Your task to perform on an android device: How do I get to the nearest T-Mobile Store? Image 0: 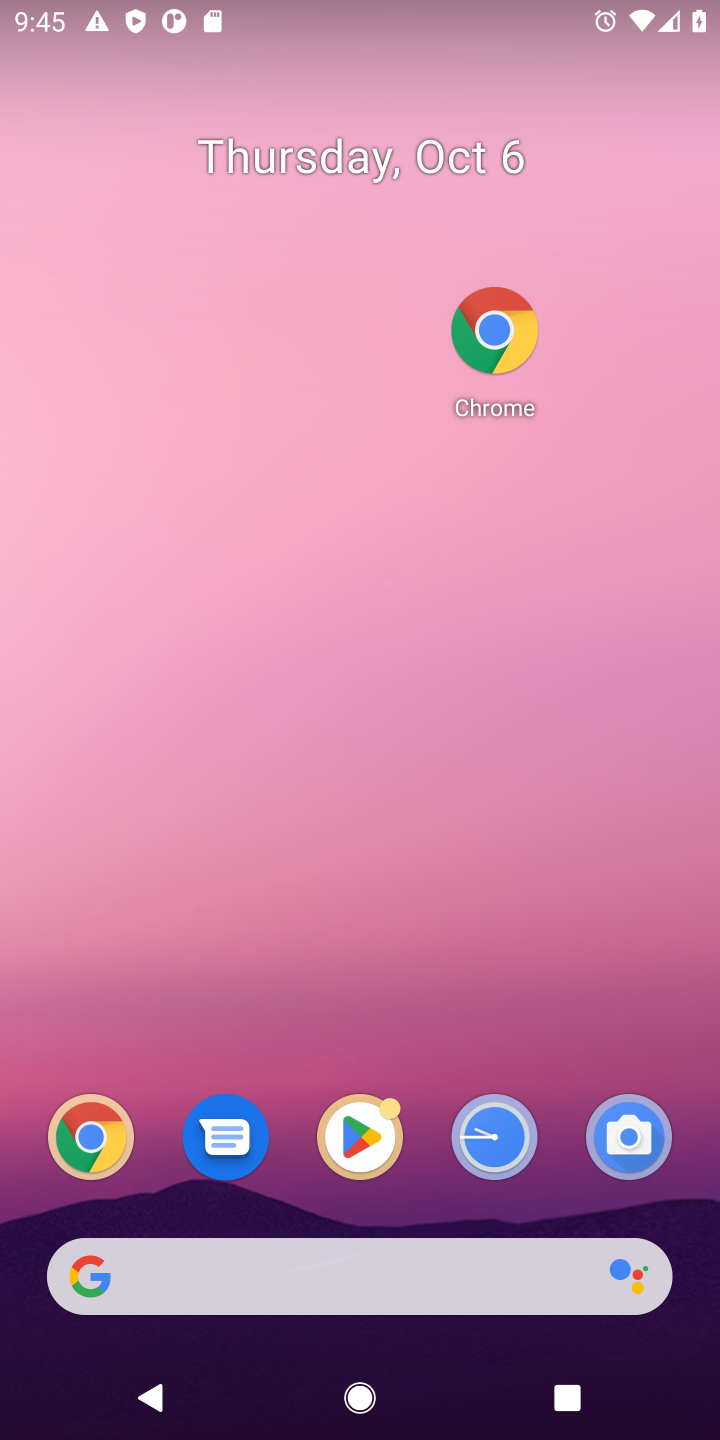
Step 0: click (97, 1141)
Your task to perform on an android device: How do I get to the nearest T-Mobile Store? Image 1: 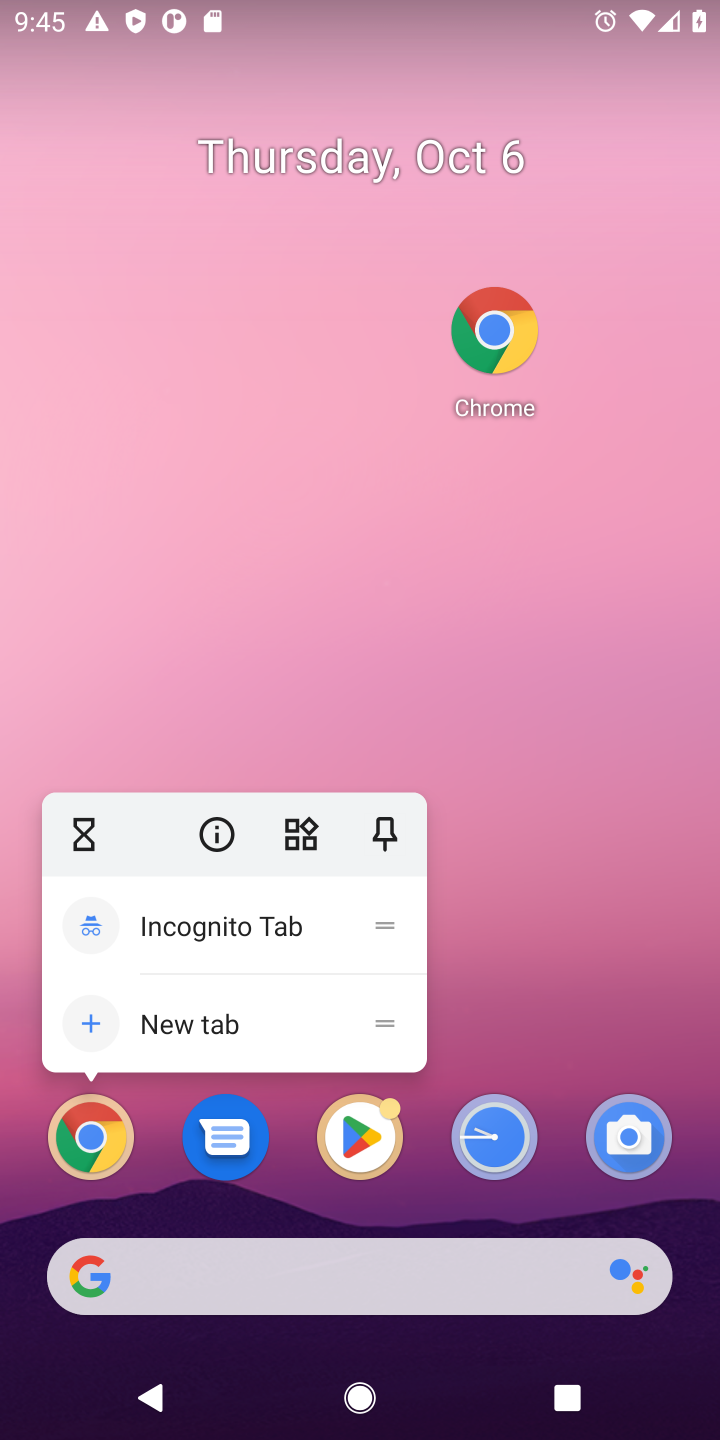
Step 1: click (88, 1129)
Your task to perform on an android device: How do I get to the nearest T-Mobile Store? Image 2: 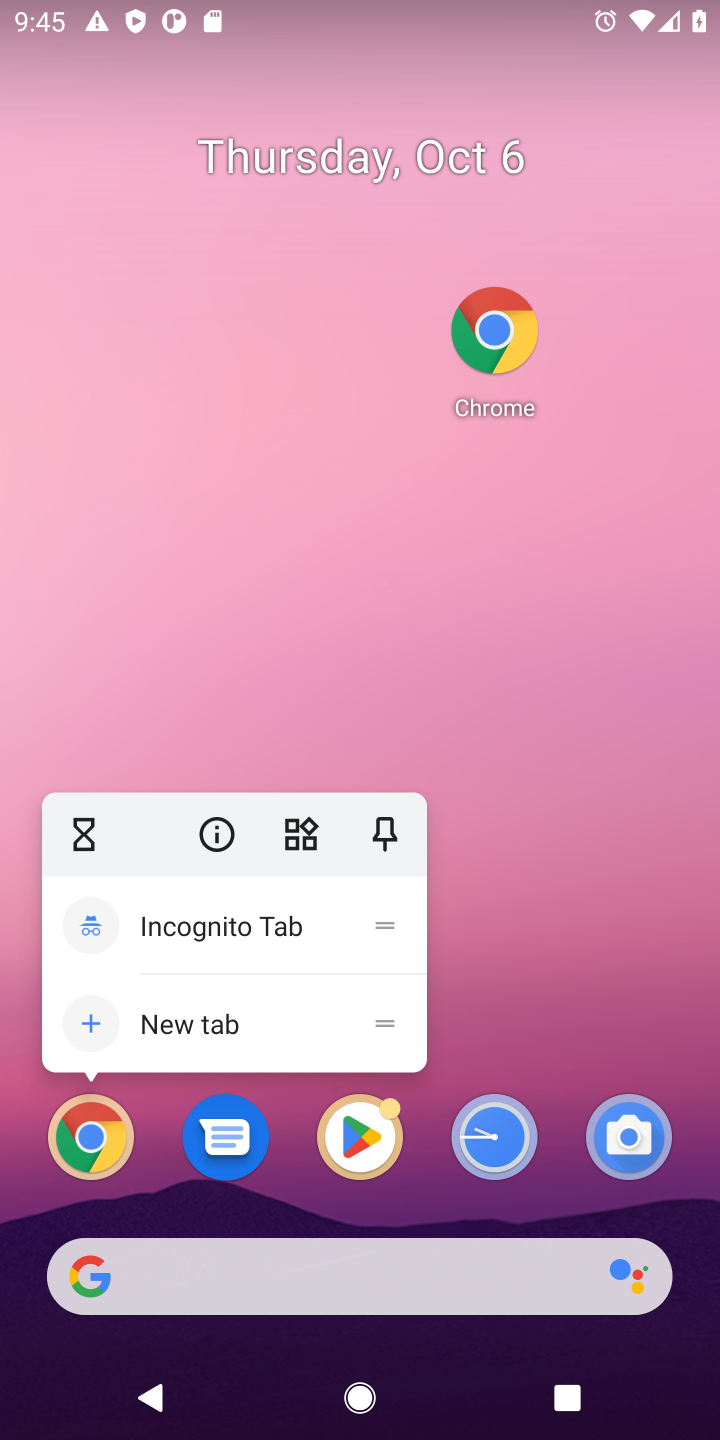
Step 2: click (102, 1153)
Your task to perform on an android device: How do I get to the nearest T-Mobile Store? Image 3: 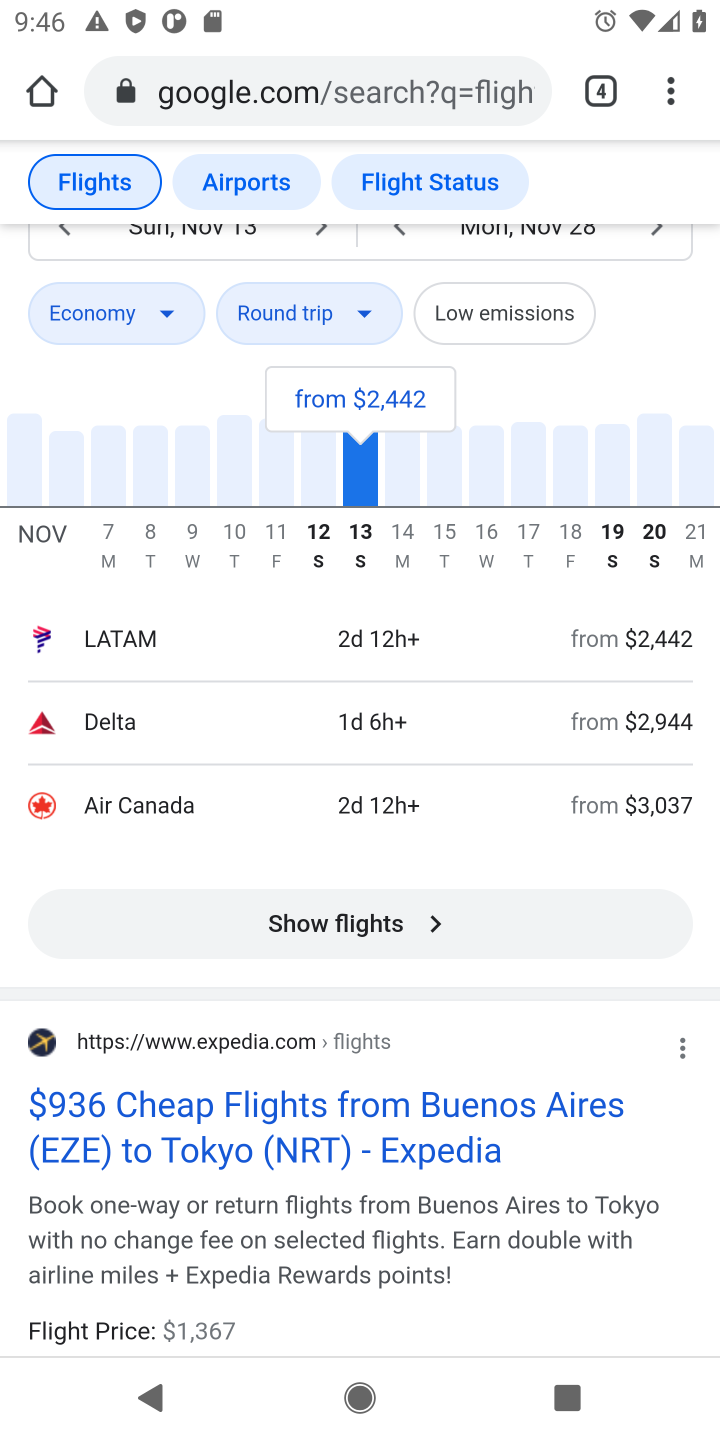
Step 3: click (403, 94)
Your task to perform on an android device: How do I get to the nearest T-Mobile Store? Image 4: 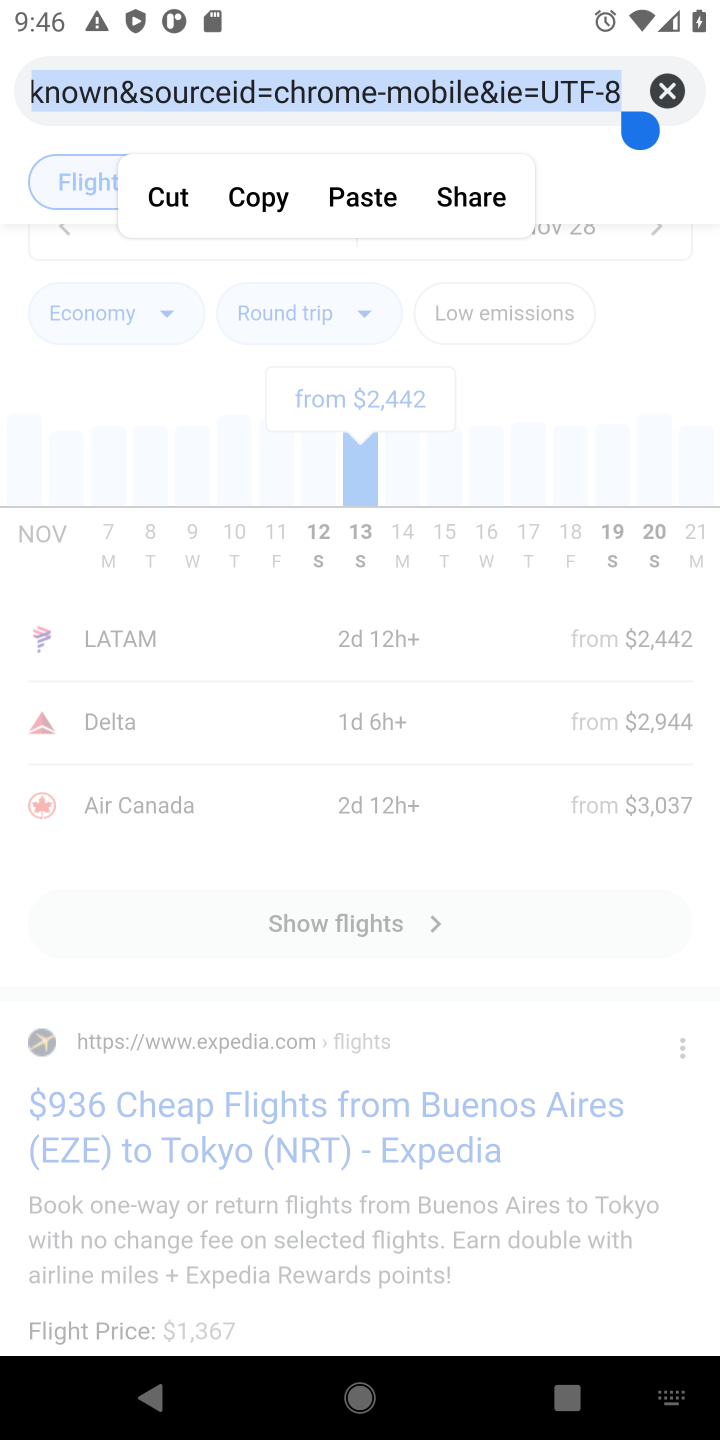
Step 4: click (668, 92)
Your task to perform on an android device: How do I get to the nearest T-Mobile Store? Image 5: 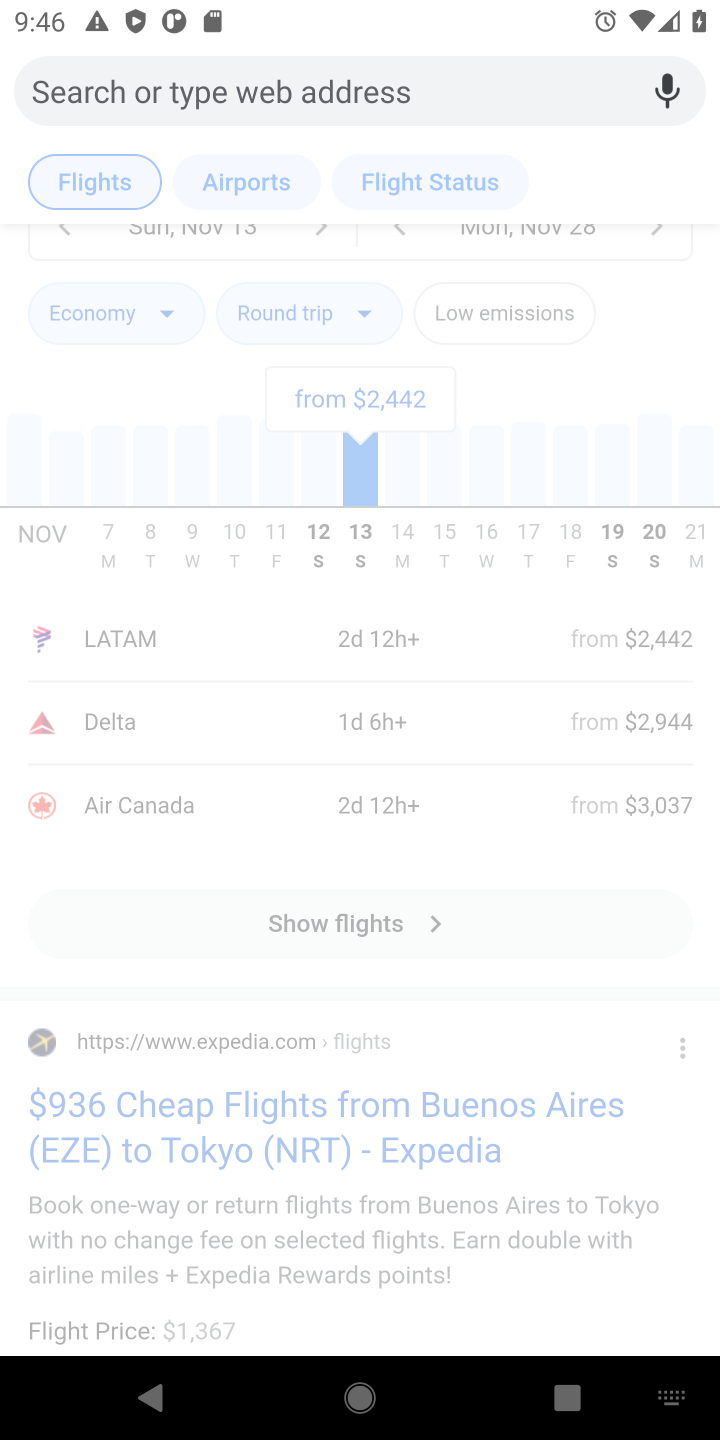
Step 5: type "How do I get to the nearest T-Mobile Store"
Your task to perform on an android device: How do I get to the nearest T-Mobile Store? Image 6: 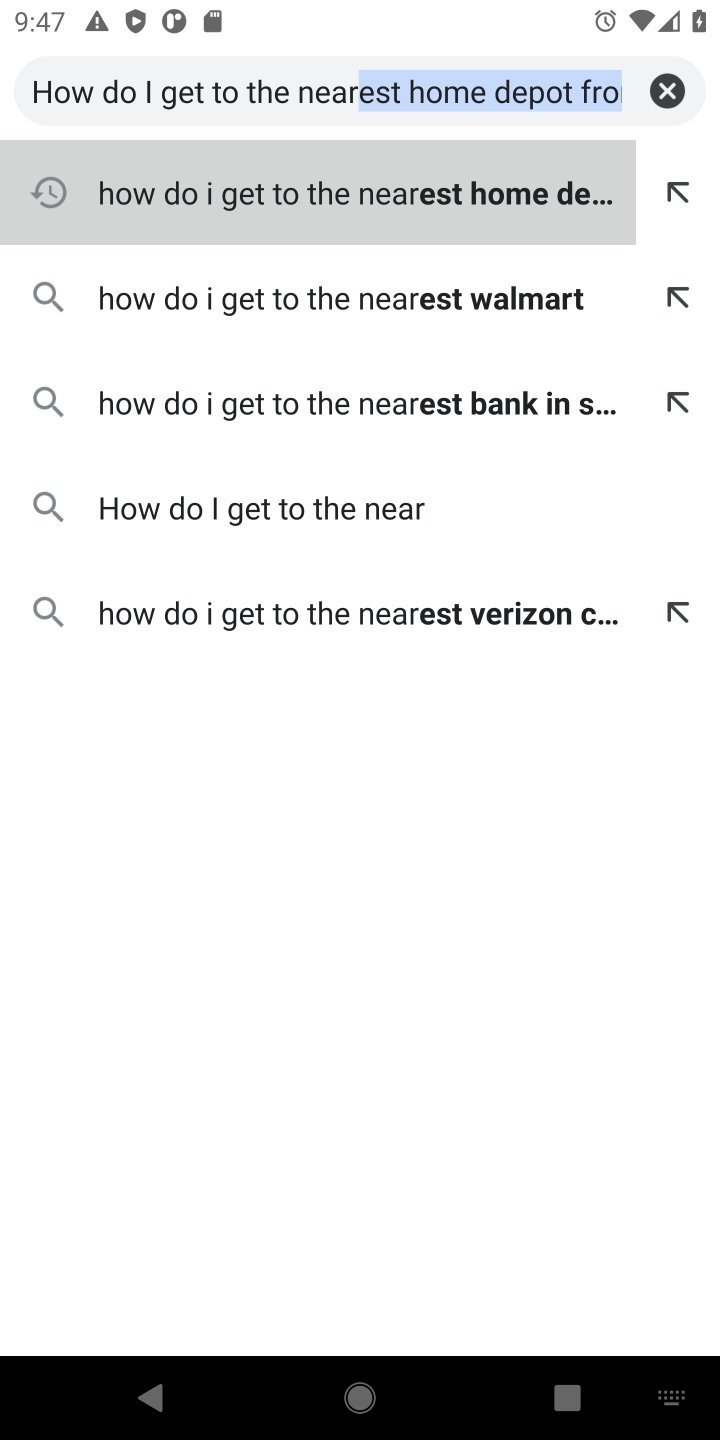
Step 6: click (361, 96)
Your task to perform on an android device: How do I get to the nearest T-Mobile Store? Image 7: 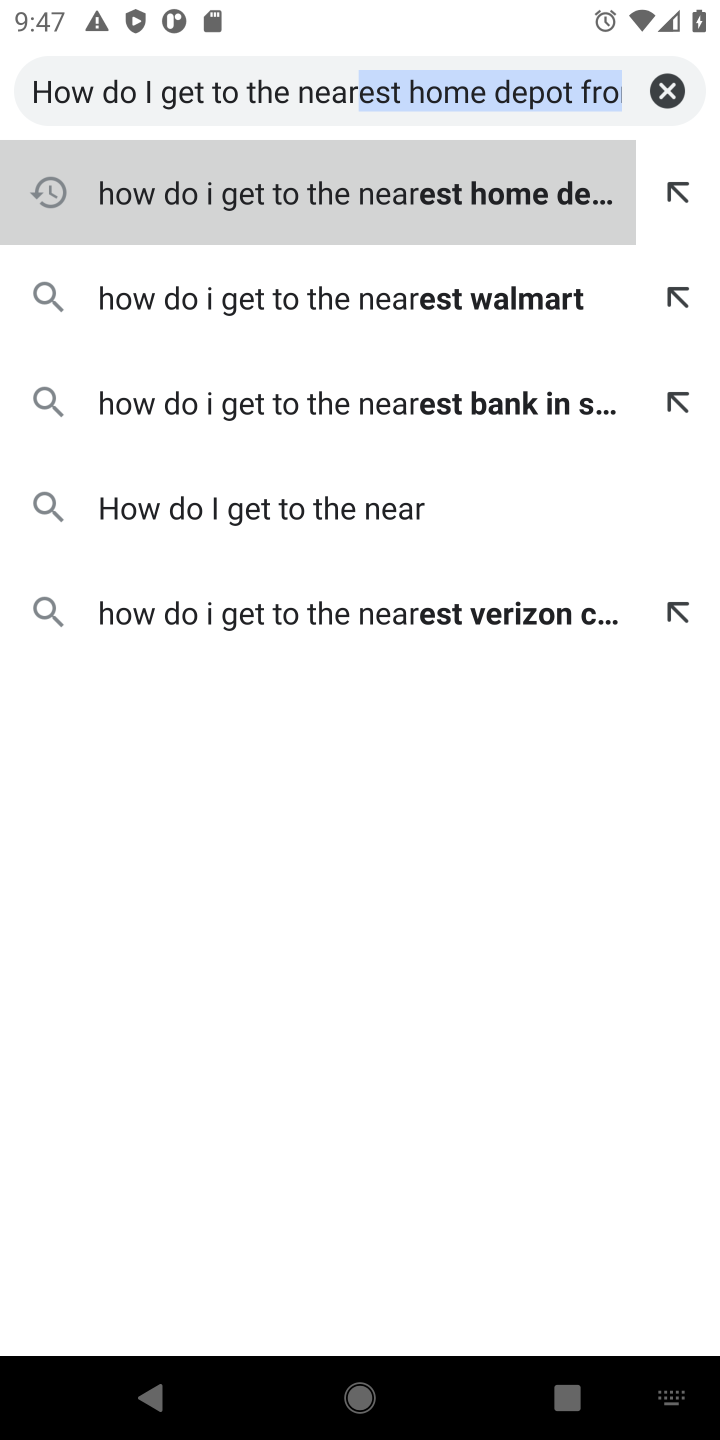
Step 7: click (351, 94)
Your task to perform on an android device: How do I get to the nearest T-Mobile Store? Image 8: 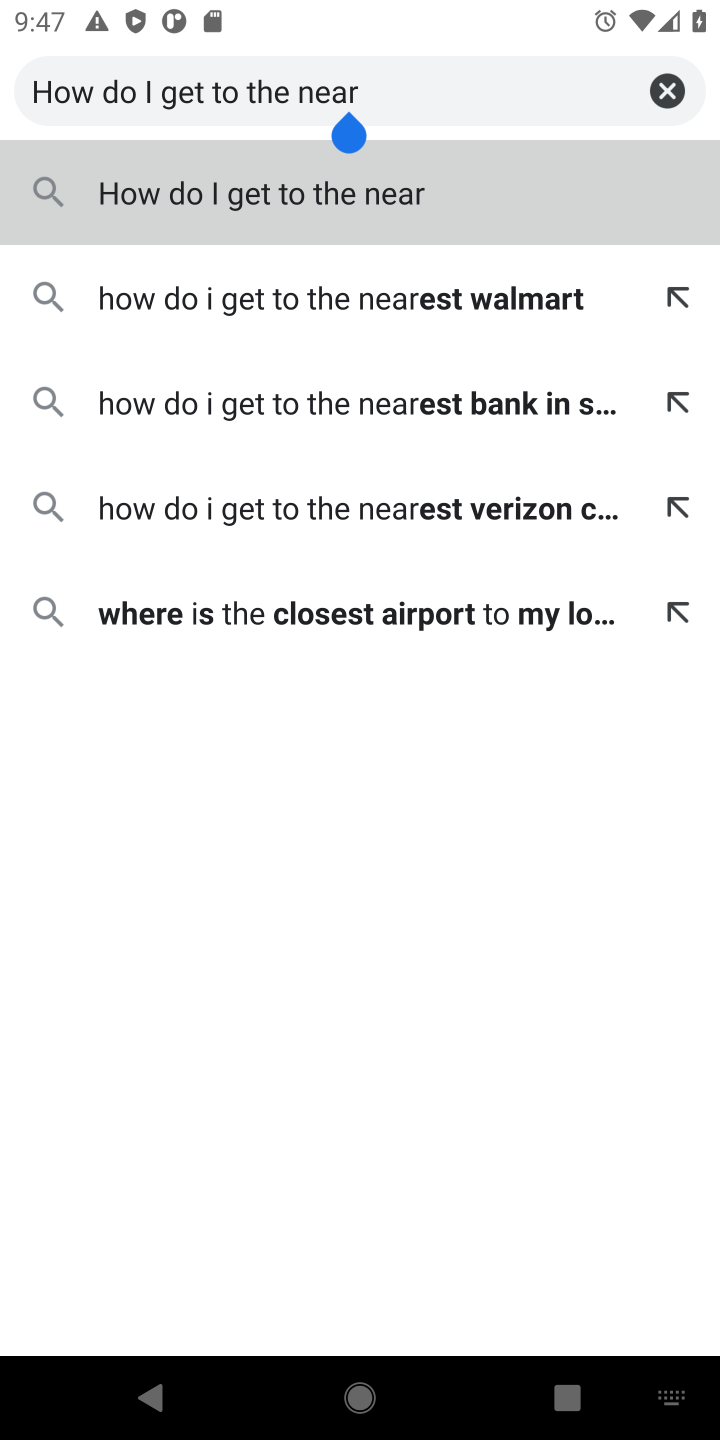
Step 8: click (368, 90)
Your task to perform on an android device: How do I get to the nearest T-Mobile Store? Image 9: 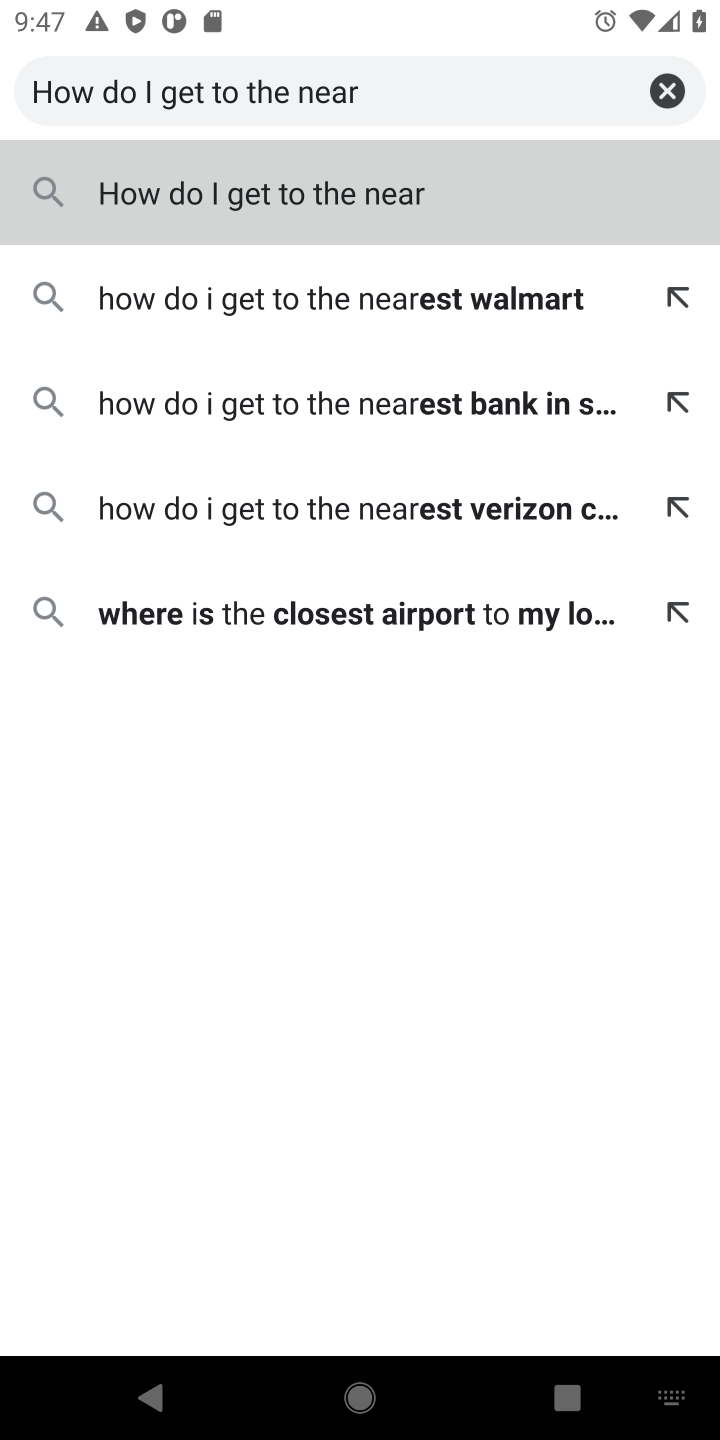
Step 9: type "est T- mobile store"
Your task to perform on an android device: How do I get to the nearest T-Mobile Store? Image 10: 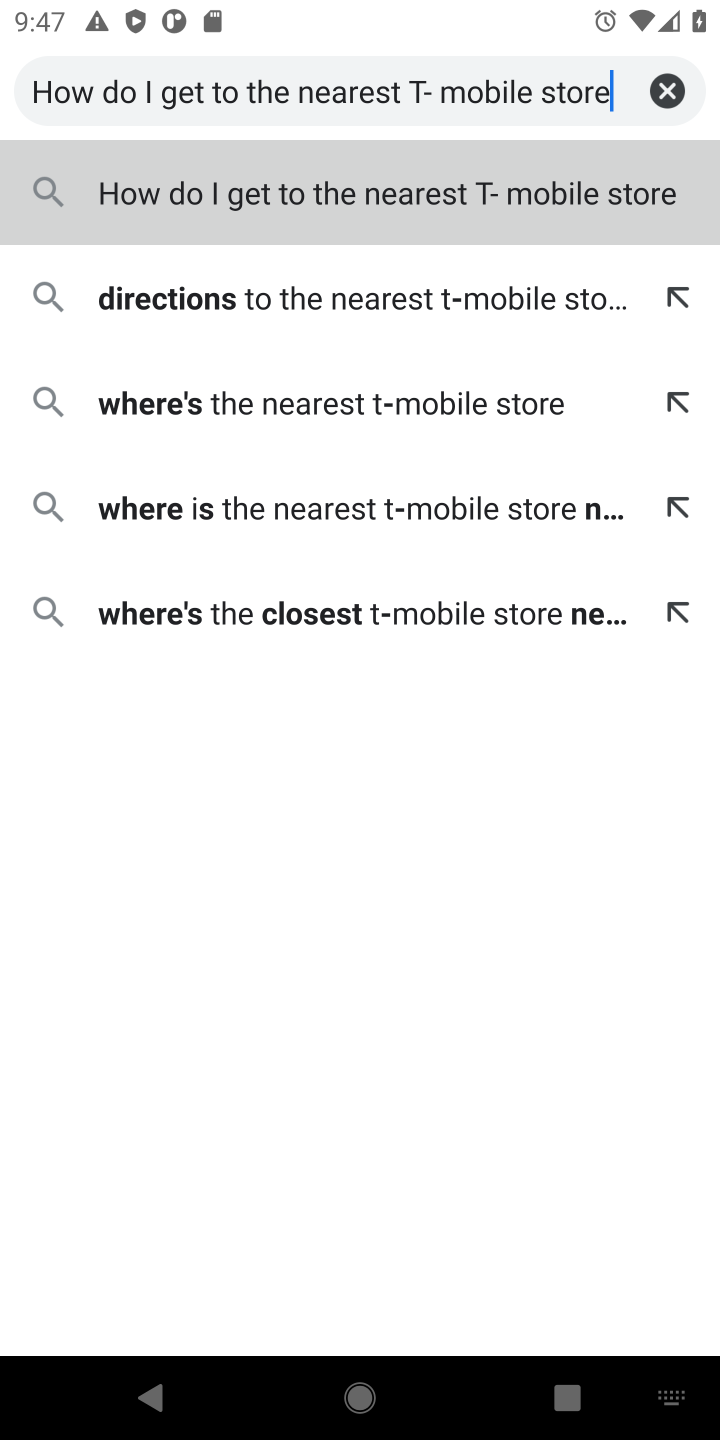
Step 10: click (436, 215)
Your task to perform on an android device: How do I get to the nearest T-Mobile Store? Image 11: 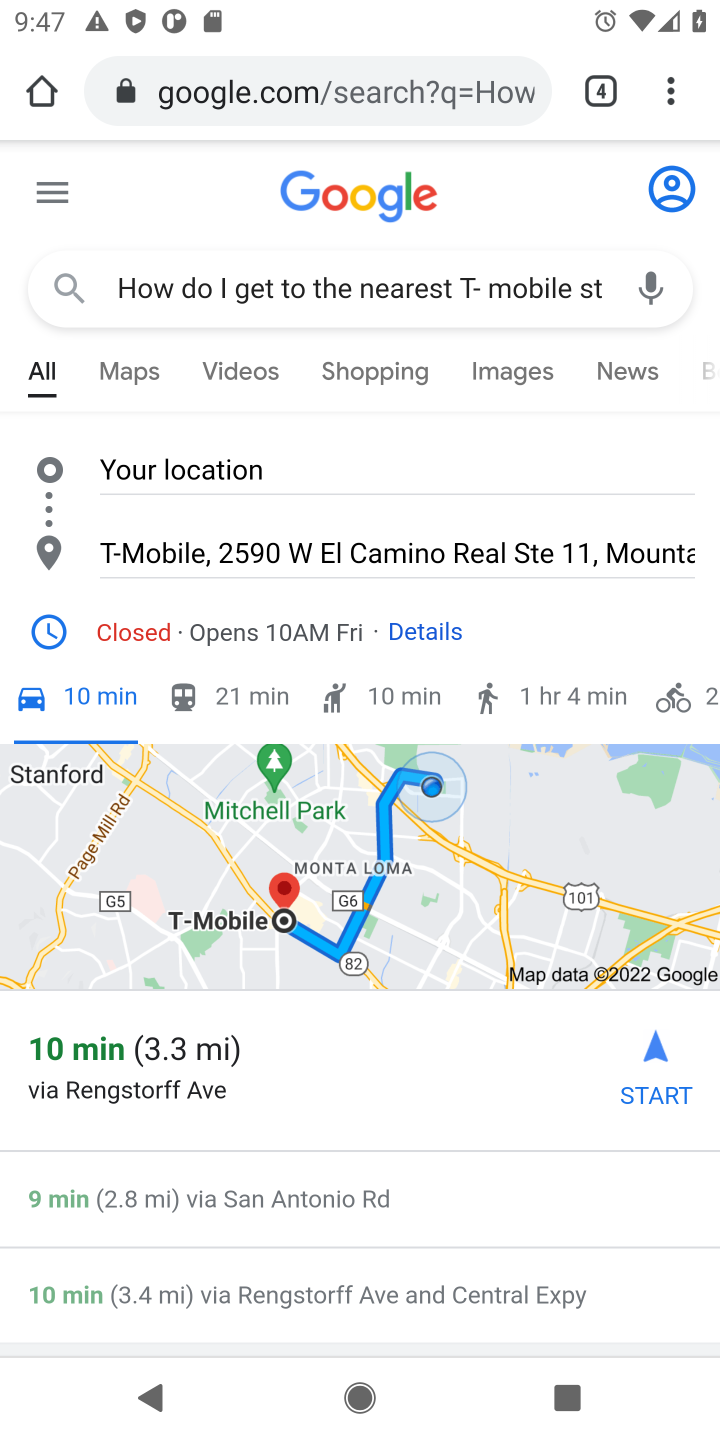
Step 11: task complete